Your task to perform on an android device: Open maps Image 0: 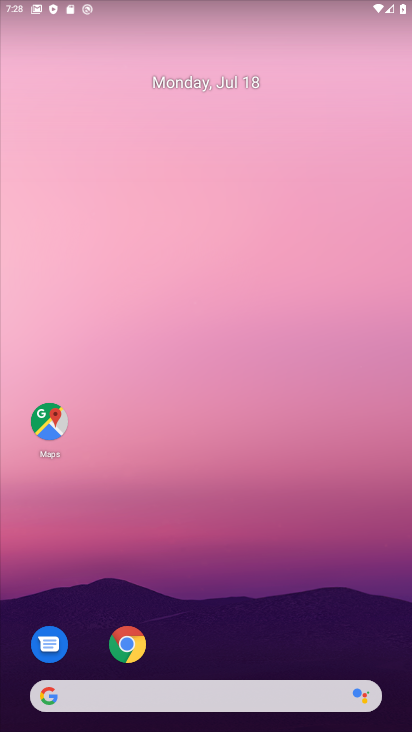
Step 0: click (46, 420)
Your task to perform on an android device: Open maps Image 1: 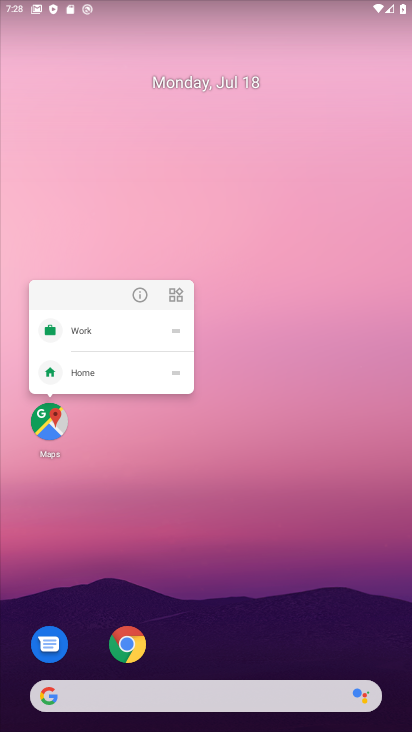
Step 1: click (49, 419)
Your task to perform on an android device: Open maps Image 2: 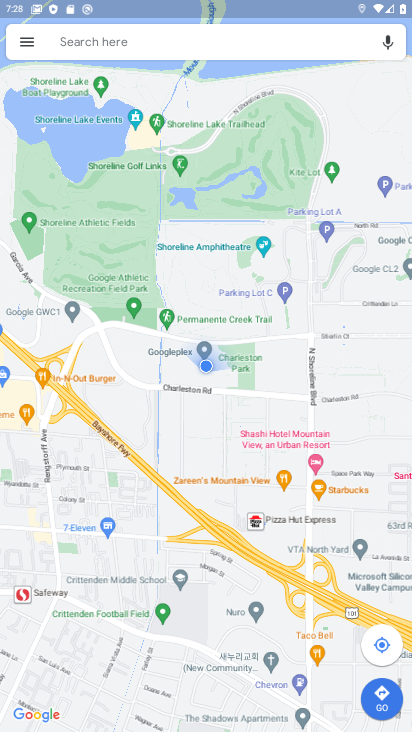
Step 2: task complete